Your task to perform on an android device: move an email to a new category in the gmail app Image 0: 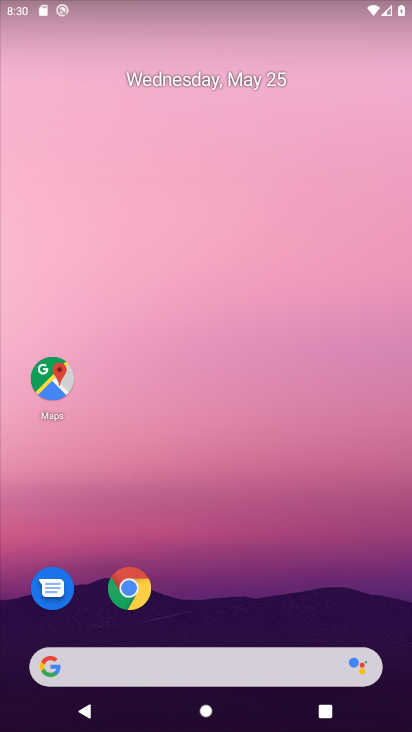
Step 0: drag from (377, 614) to (381, 322)
Your task to perform on an android device: move an email to a new category in the gmail app Image 1: 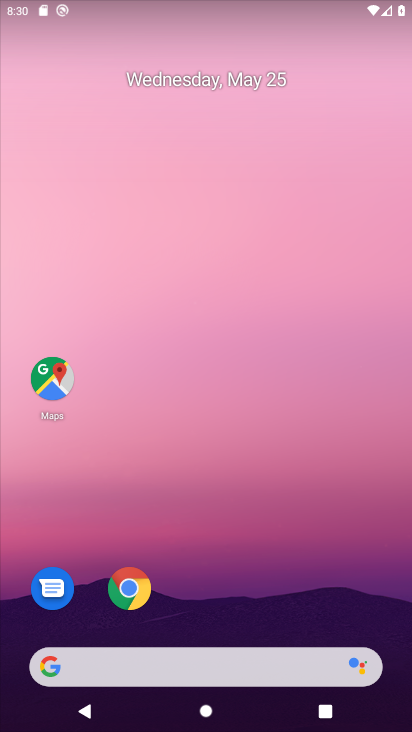
Step 1: drag from (374, 599) to (377, 321)
Your task to perform on an android device: move an email to a new category in the gmail app Image 2: 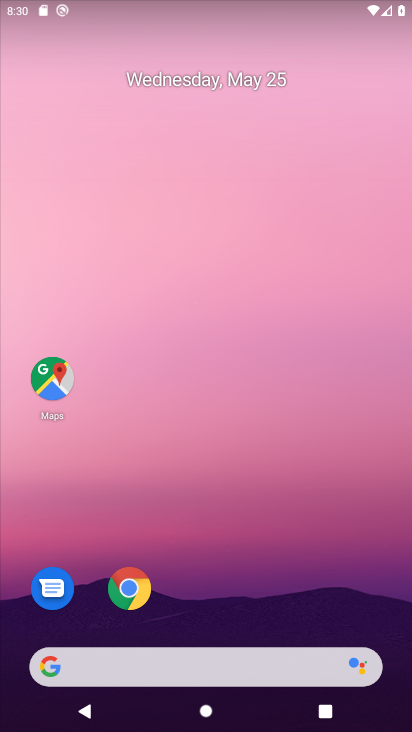
Step 2: drag from (298, 512) to (335, 86)
Your task to perform on an android device: move an email to a new category in the gmail app Image 3: 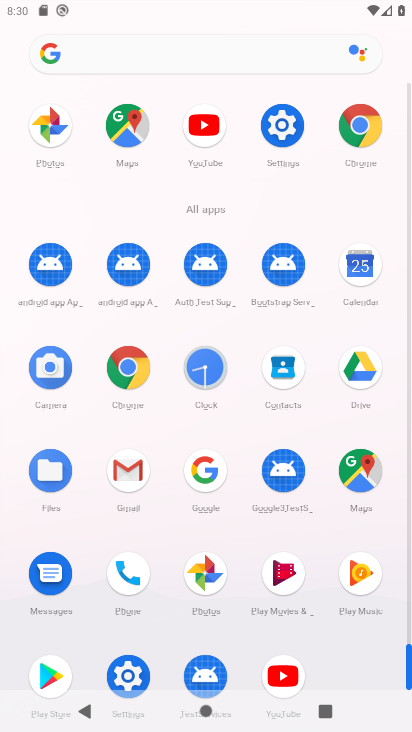
Step 3: click (133, 471)
Your task to perform on an android device: move an email to a new category in the gmail app Image 4: 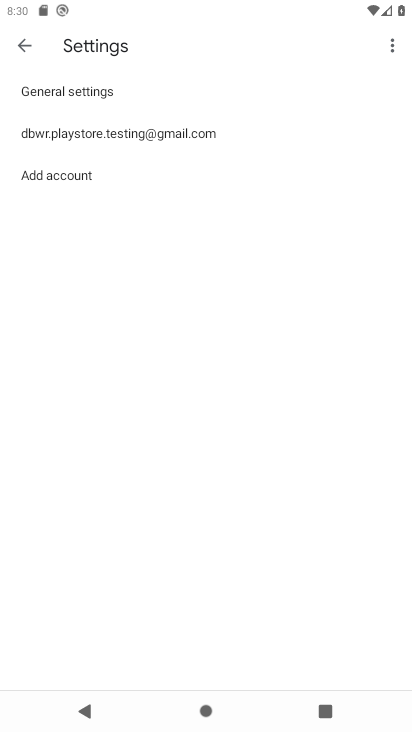
Step 4: click (27, 49)
Your task to perform on an android device: move an email to a new category in the gmail app Image 5: 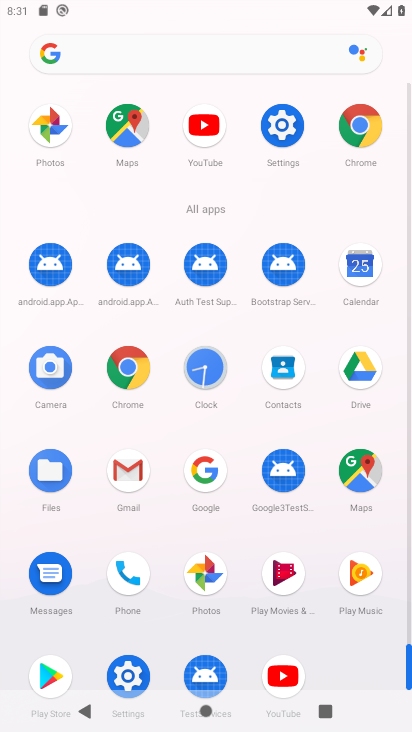
Step 5: click (131, 472)
Your task to perform on an android device: move an email to a new category in the gmail app Image 6: 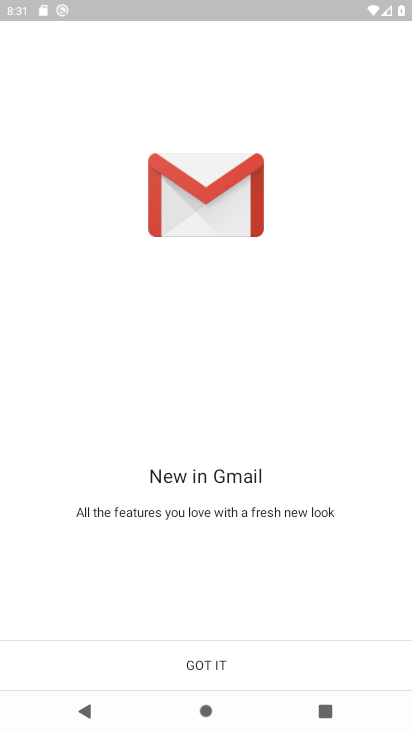
Step 6: click (211, 665)
Your task to perform on an android device: move an email to a new category in the gmail app Image 7: 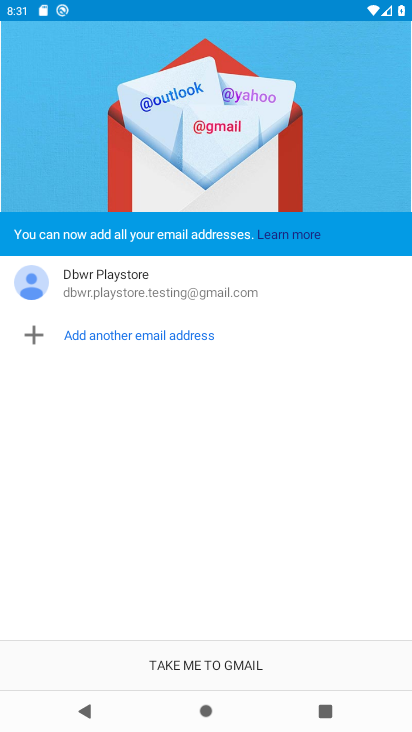
Step 7: click (211, 665)
Your task to perform on an android device: move an email to a new category in the gmail app Image 8: 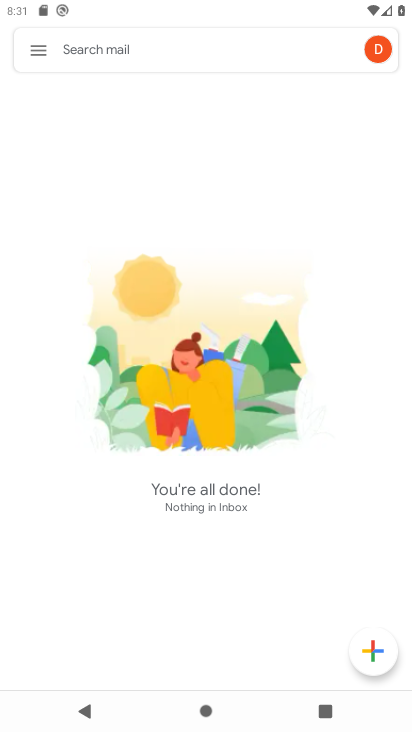
Step 8: task complete